Your task to perform on an android device: Open Android settings Image 0: 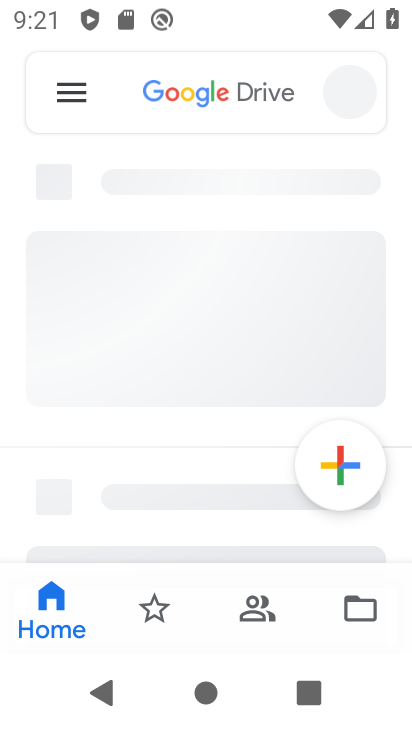
Step 0: click (68, 343)
Your task to perform on an android device: Open Android settings Image 1: 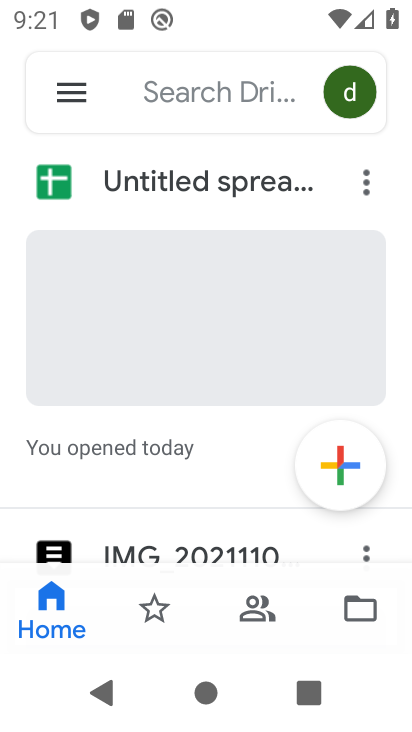
Step 1: press home button
Your task to perform on an android device: Open Android settings Image 2: 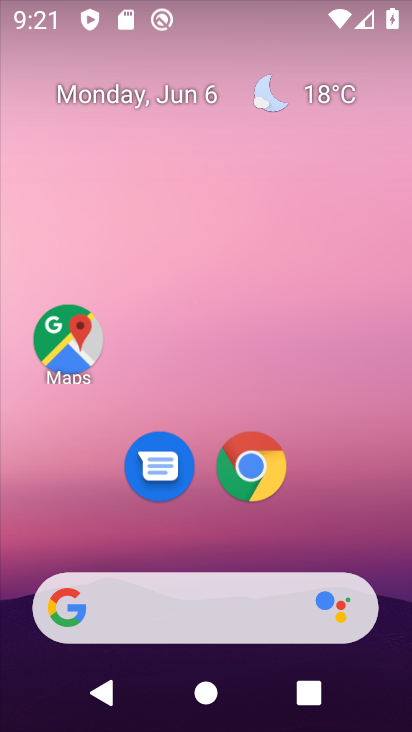
Step 2: drag from (204, 558) to (204, 165)
Your task to perform on an android device: Open Android settings Image 3: 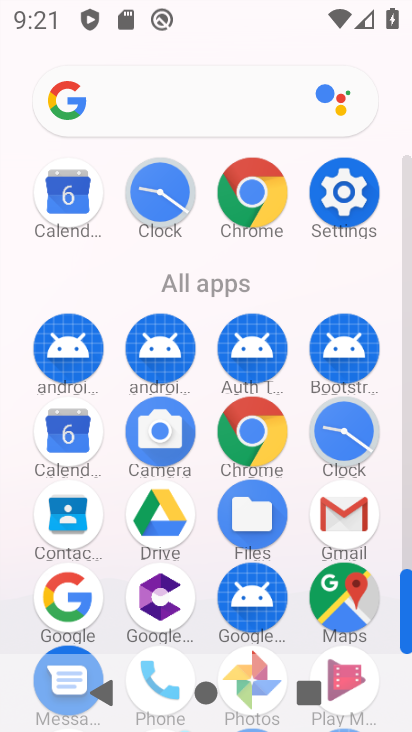
Step 3: click (336, 197)
Your task to perform on an android device: Open Android settings Image 4: 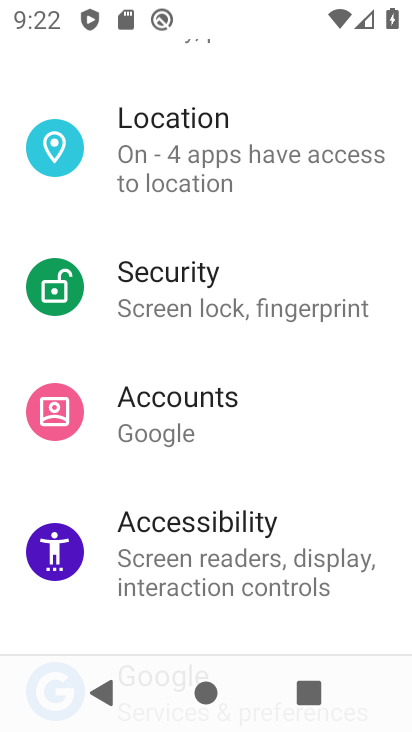
Step 4: drag from (268, 578) to (268, 225)
Your task to perform on an android device: Open Android settings Image 5: 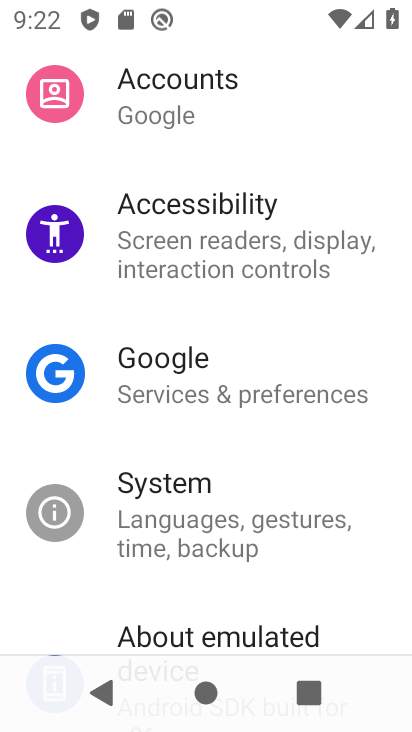
Step 5: drag from (259, 594) to (257, 295)
Your task to perform on an android device: Open Android settings Image 6: 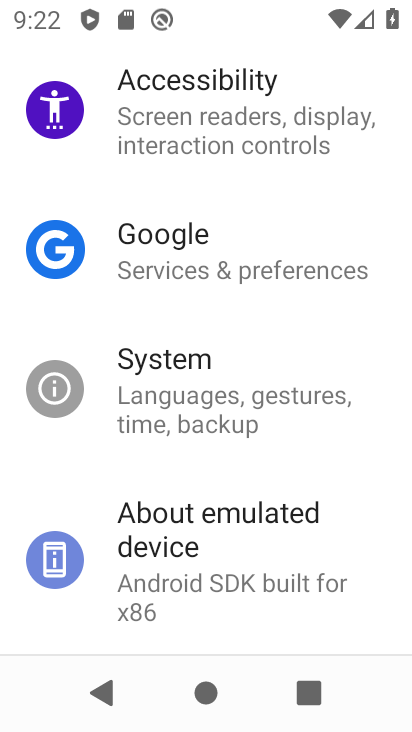
Step 6: click (184, 551)
Your task to perform on an android device: Open Android settings Image 7: 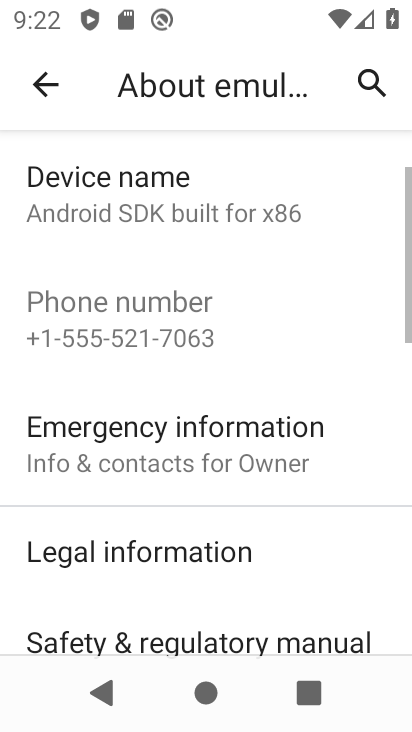
Step 7: drag from (183, 588) to (203, 311)
Your task to perform on an android device: Open Android settings Image 8: 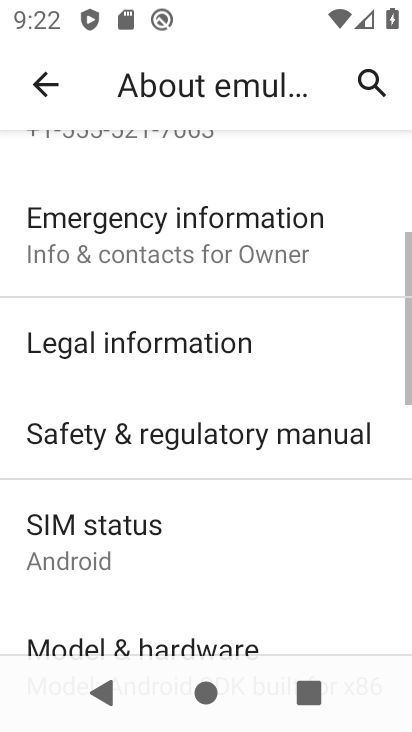
Step 8: drag from (177, 580) to (185, 166)
Your task to perform on an android device: Open Android settings Image 9: 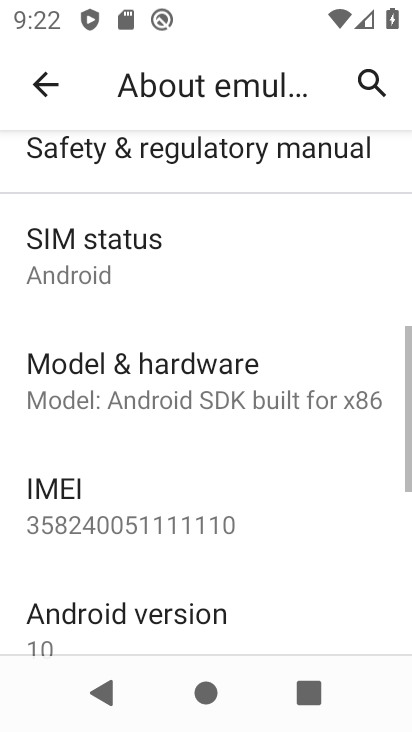
Step 9: drag from (143, 519) to (160, 360)
Your task to perform on an android device: Open Android settings Image 10: 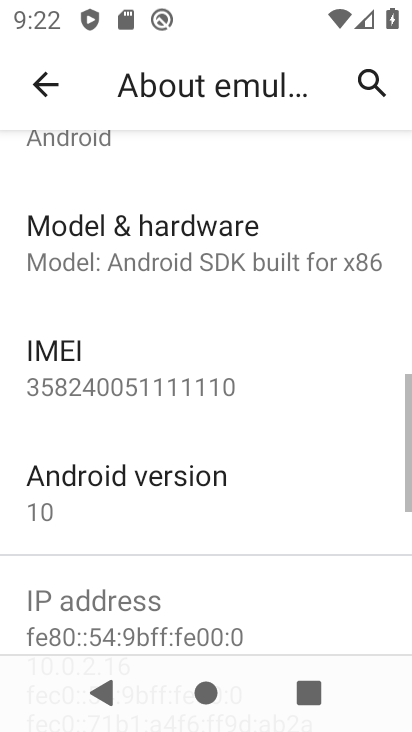
Step 10: click (106, 516)
Your task to perform on an android device: Open Android settings Image 11: 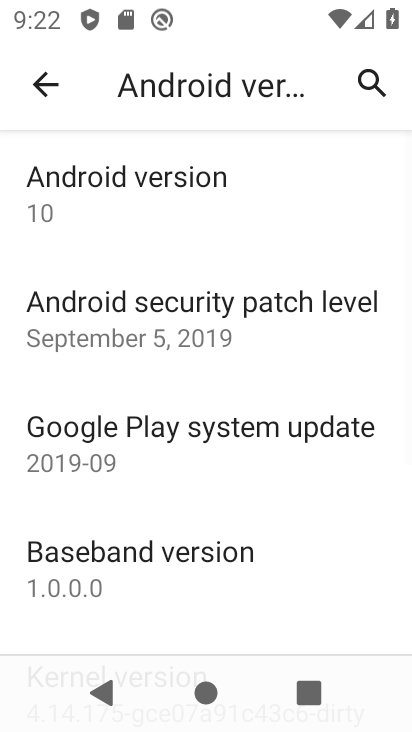
Step 11: task complete